Your task to perform on an android device: Open Android settings Image 0: 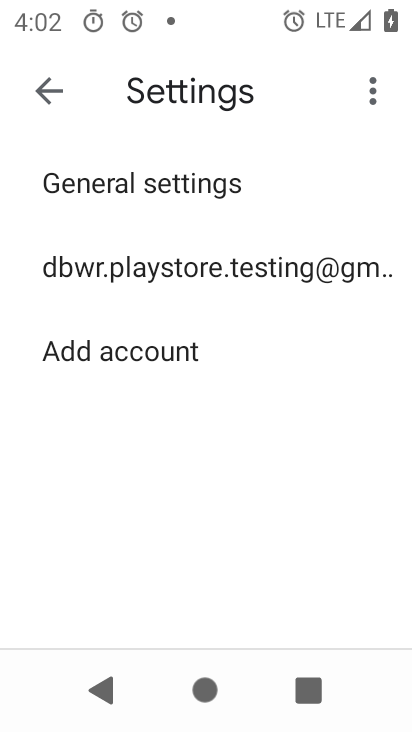
Step 0: press home button
Your task to perform on an android device: Open Android settings Image 1: 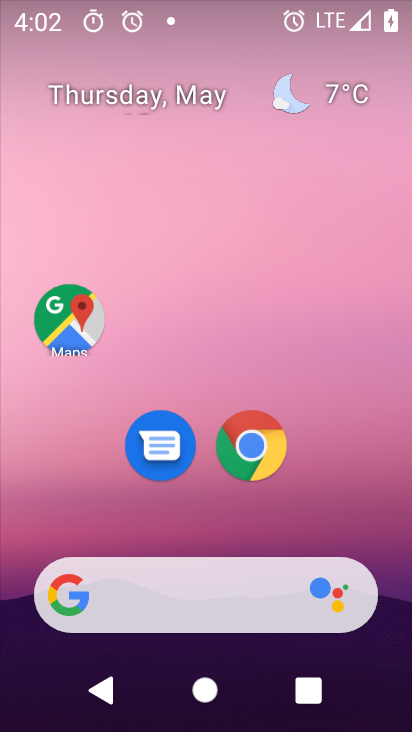
Step 1: drag from (366, 544) to (407, 0)
Your task to perform on an android device: Open Android settings Image 2: 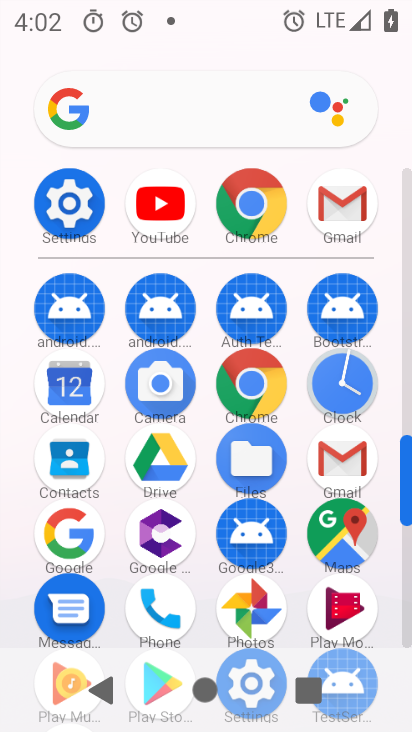
Step 2: click (75, 211)
Your task to perform on an android device: Open Android settings Image 3: 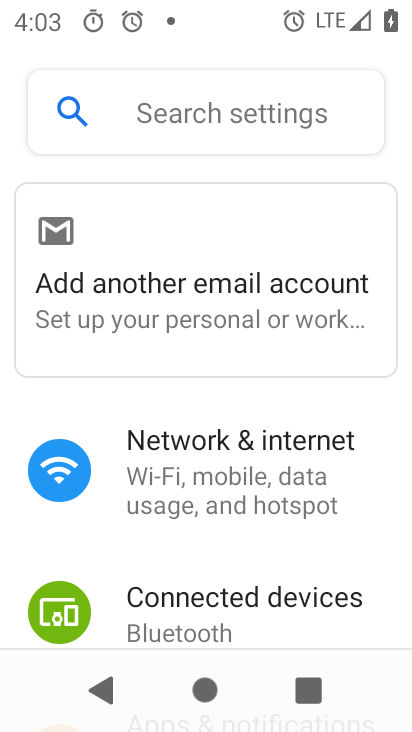
Step 3: task complete